Your task to perform on an android device: toggle airplane mode Image 0: 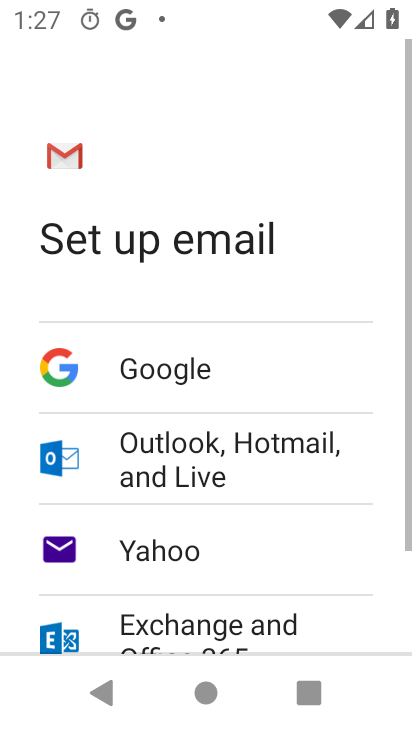
Step 0: press home button
Your task to perform on an android device: toggle airplane mode Image 1: 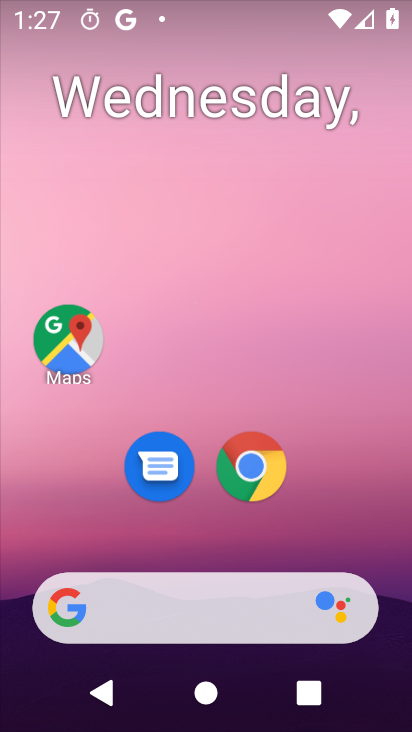
Step 1: drag from (332, 515) to (304, 300)
Your task to perform on an android device: toggle airplane mode Image 2: 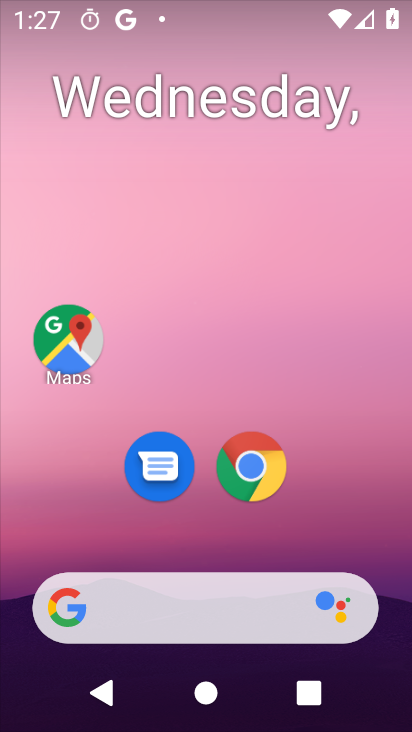
Step 2: drag from (273, 445) to (211, 13)
Your task to perform on an android device: toggle airplane mode Image 3: 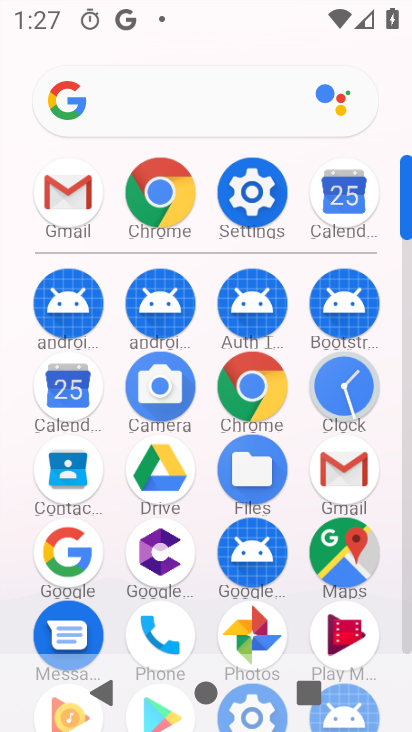
Step 3: drag from (196, 521) to (183, 166)
Your task to perform on an android device: toggle airplane mode Image 4: 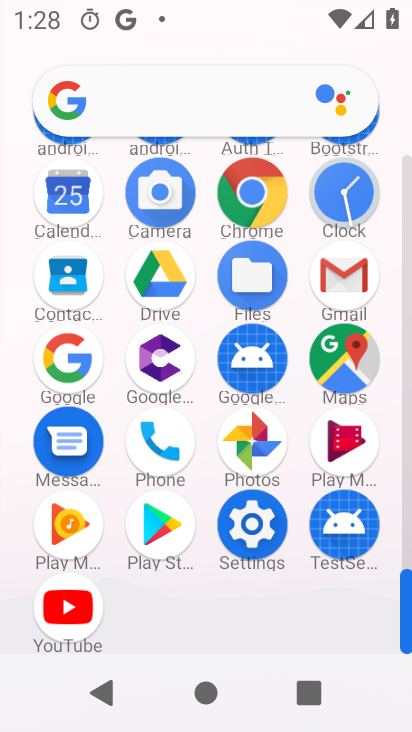
Step 4: click (244, 538)
Your task to perform on an android device: toggle airplane mode Image 5: 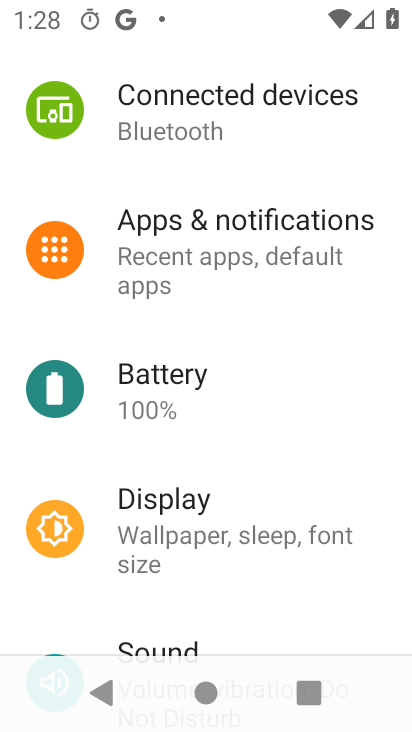
Step 5: drag from (210, 247) to (247, 552)
Your task to perform on an android device: toggle airplane mode Image 6: 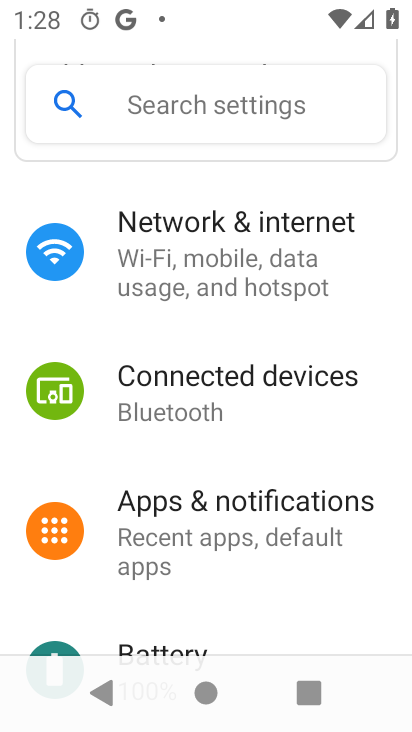
Step 6: click (235, 275)
Your task to perform on an android device: toggle airplane mode Image 7: 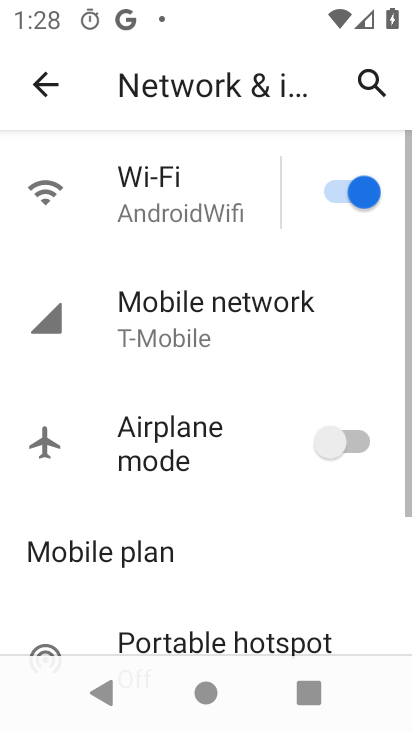
Step 7: drag from (173, 516) to (158, 325)
Your task to perform on an android device: toggle airplane mode Image 8: 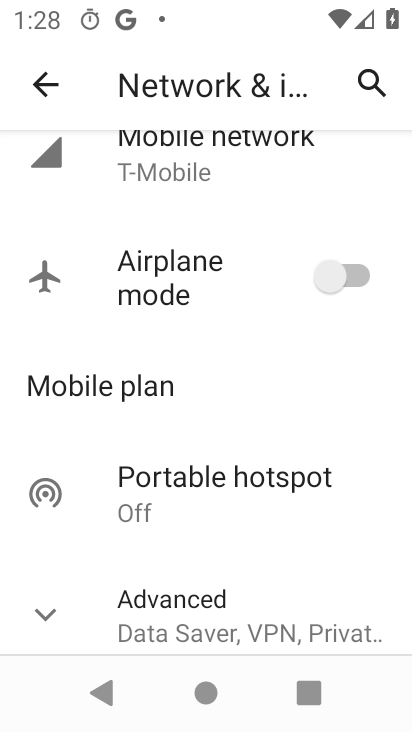
Step 8: click (191, 297)
Your task to perform on an android device: toggle airplane mode Image 9: 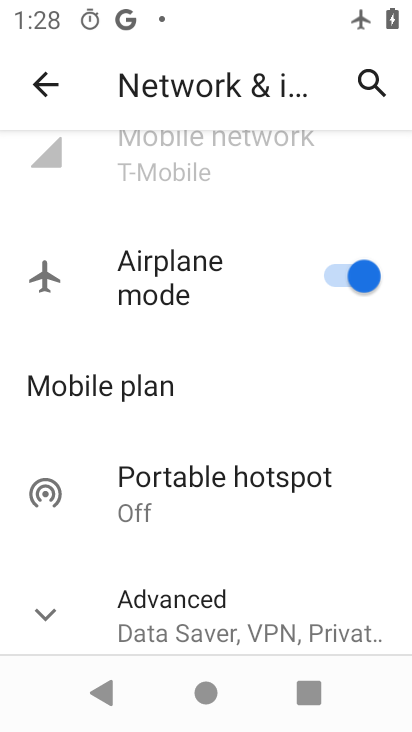
Step 9: task complete